Your task to perform on an android device: open wifi settings Image 0: 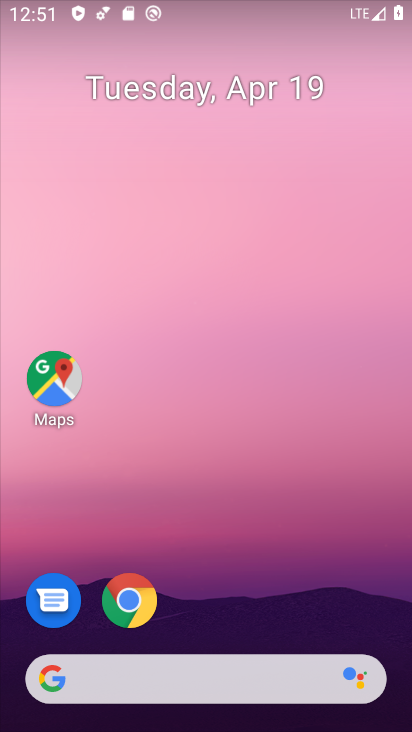
Step 0: drag from (219, 646) to (206, 24)
Your task to perform on an android device: open wifi settings Image 1: 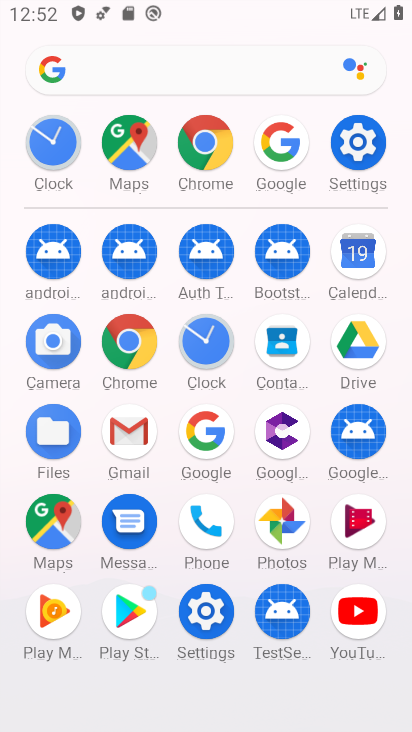
Step 1: click (198, 606)
Your task to perform on an android device: open wifi settings Image 2: 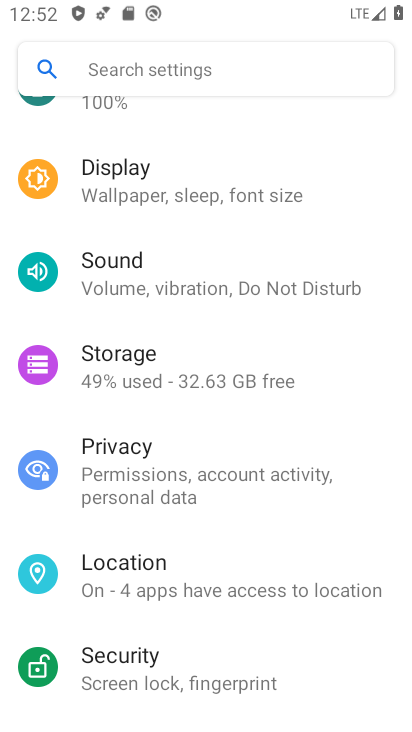
Step 2: drag from (189, 185) to (189, 639)
Your task to perform on an android device: open wifi settings Image 3: 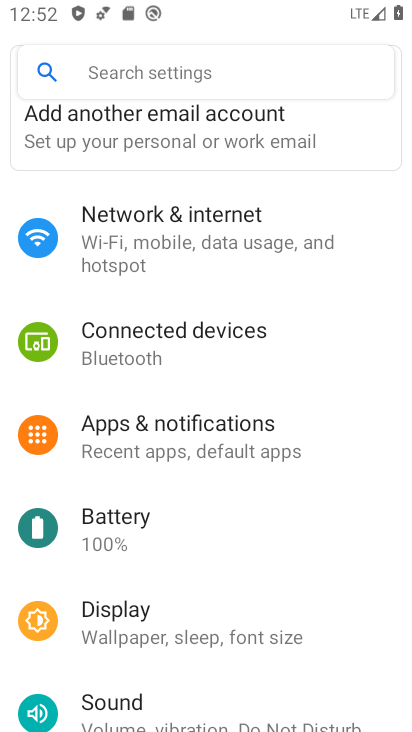
Step 3: click (170, 245)
Your task to perform on an android device: open wifi settings Image 4: 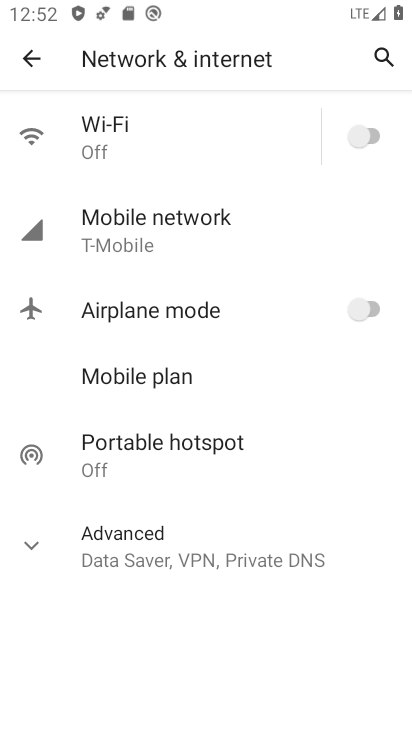
Step 4: click (61, 145)
Your task to perform on an android device: open wifi settings Image 5: 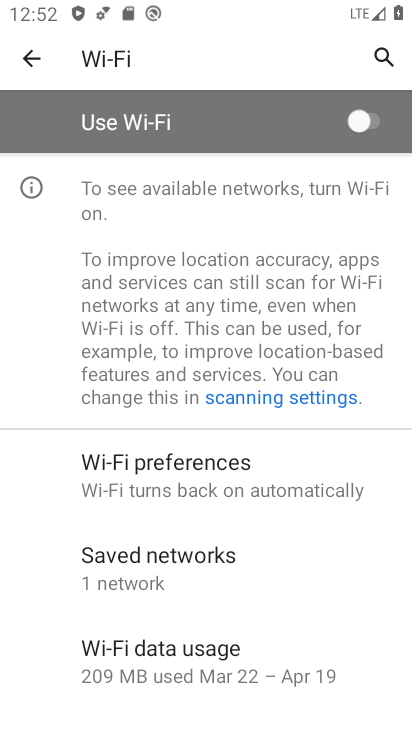
Step 5: task complete